Your task to perform on an android device: Is it going to rain tomorrow? Image 0: 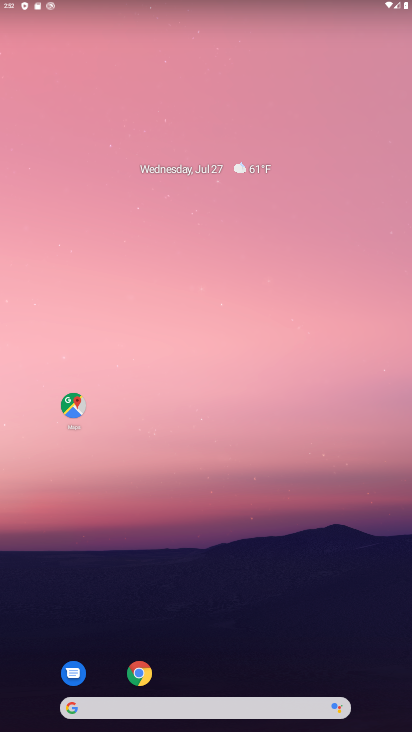
Step 0: drag from (247, 684) to (235, 357)
Your task to perform on an android device: Is it going to rain tomorrow? Image 1: 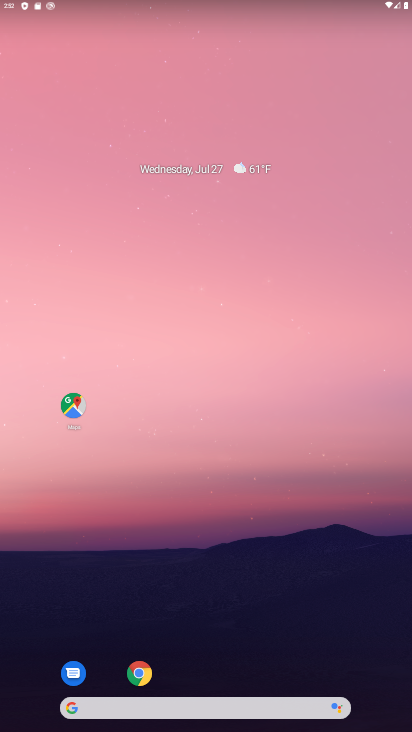
Step 1: click (268, 710)
Your task to perform on an android device: Is it going to rain tomorrow? Image 2: 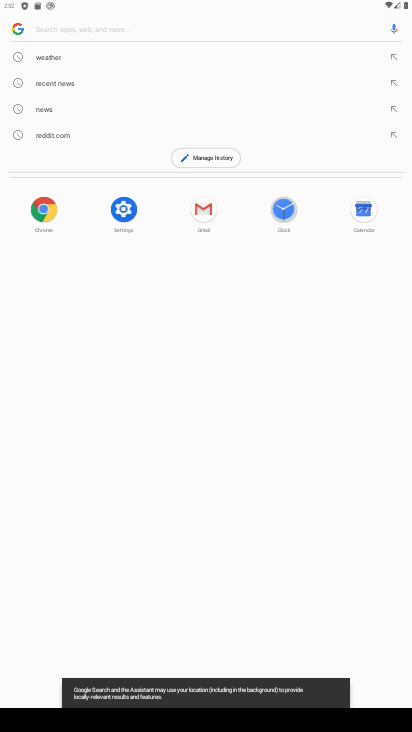
Step 2: click (84, 56)
Your task to perform on an android device: Is it going to rain tomorrow? Image 3: 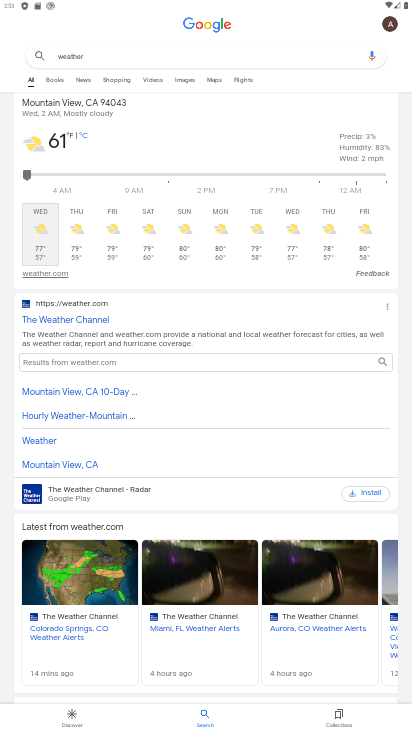
Step 3: task complete